Your task to perform on an android device: Open privacy settings Image 0: 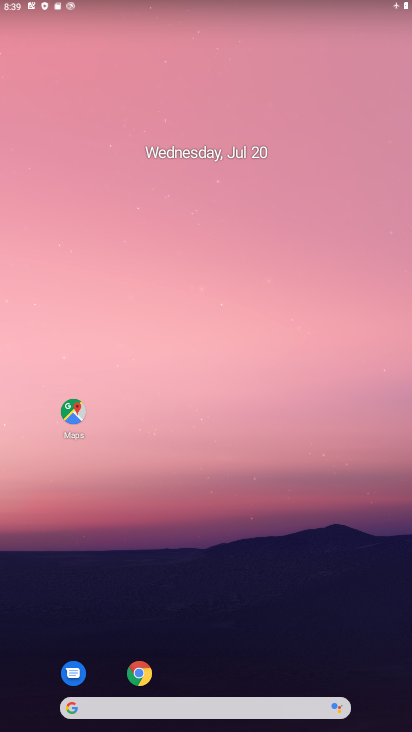
Step 0: drag from (204, 727) to (208, 302)
Your task to perform on an android device: Open privacy settings Image 1: 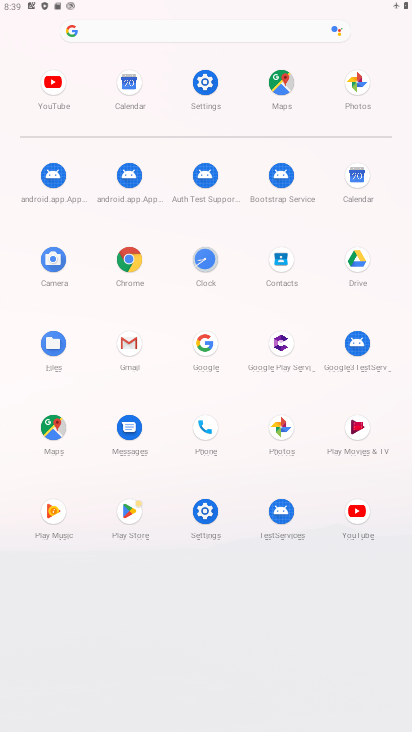
Step 1: click (205, 87)
Your task to perform on an android device: Open privacy settings Image 2: 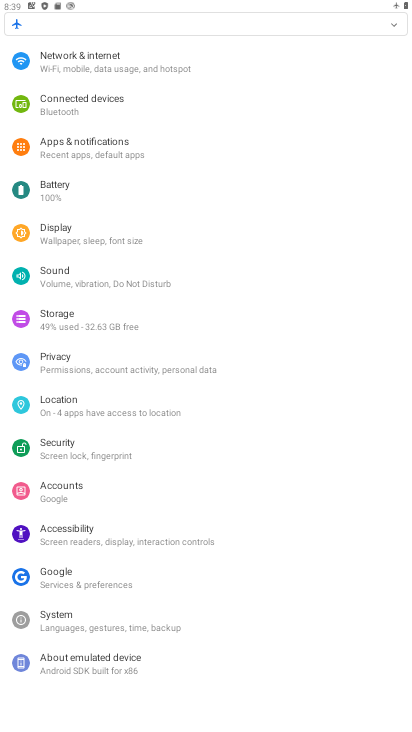
Step 2: click (56, 359)
Your task to perform on an android device: Open privacy settings Image 3: 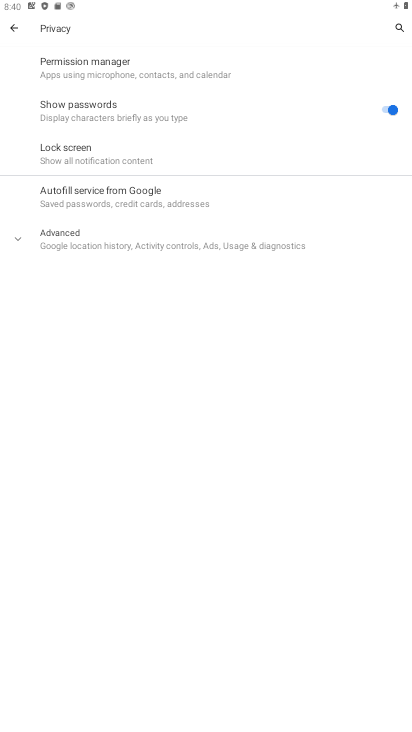
Step 3: task complete